Your task to perform on an android device: Turn off the flashlight Image 0: 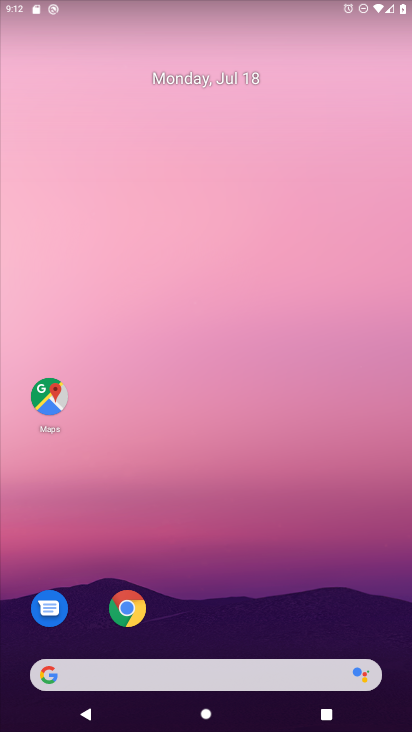
Step 0: press home button
Your task to perform on an android device: Turn off the flashlight Image 1: 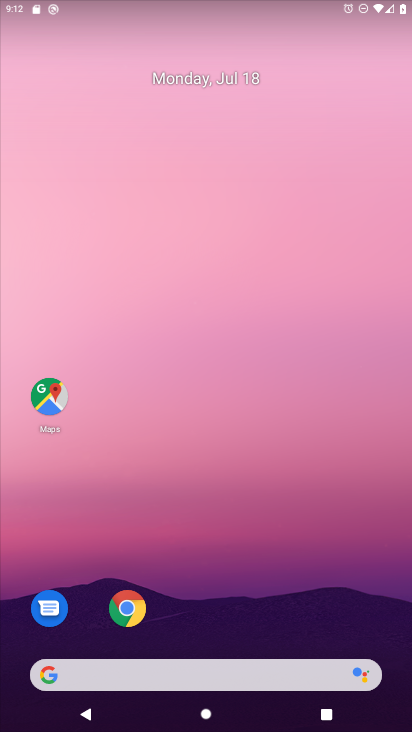
Step 1: drag from (228, 641) to (246, 0)
Your task to perform on an android device: Turn off the flashlight Image 2: 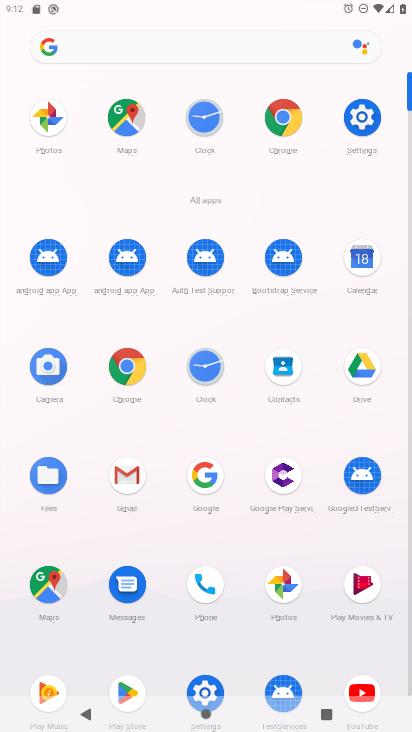
Step 2: click (358, 109)
Your task to perform on an android device: Turn off the flashlight Image 3: 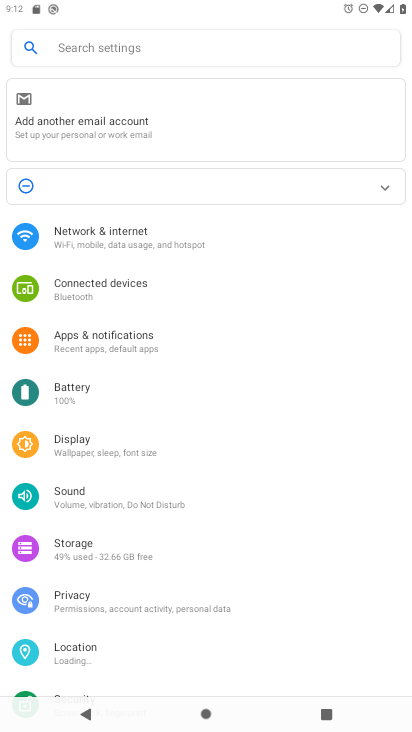
Step 3: click (96, 35)
Your task to perform on an android device: Turn off the flashlight Image 4: 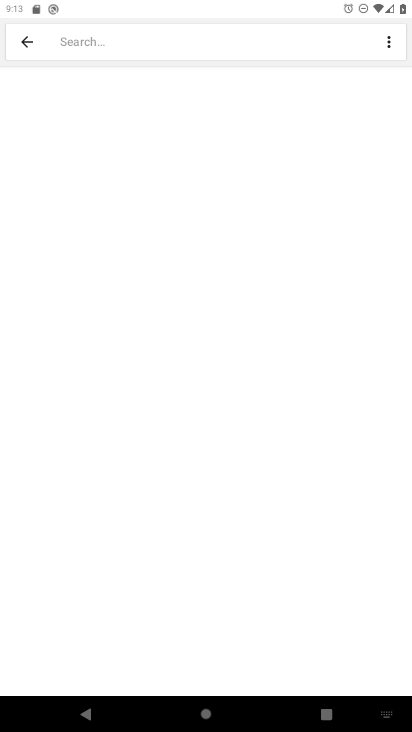
Step 4: type "flashlight"
Your task to perform on an android device: Turn off the flashlight Image 5: 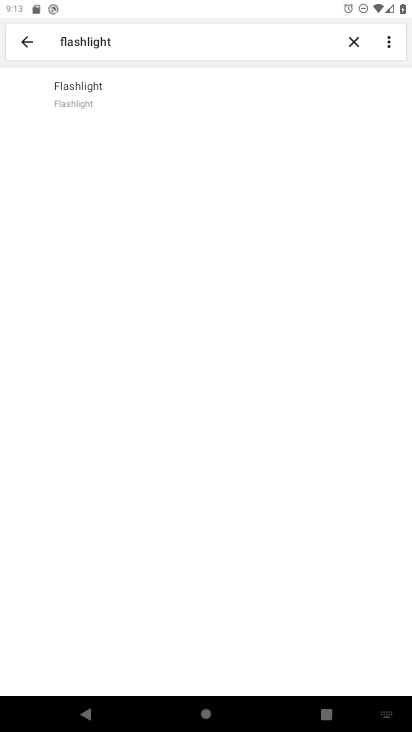
Step 5: click (108, 92)
Your task to perform on an android device: Turn off the flashlight Image 6: 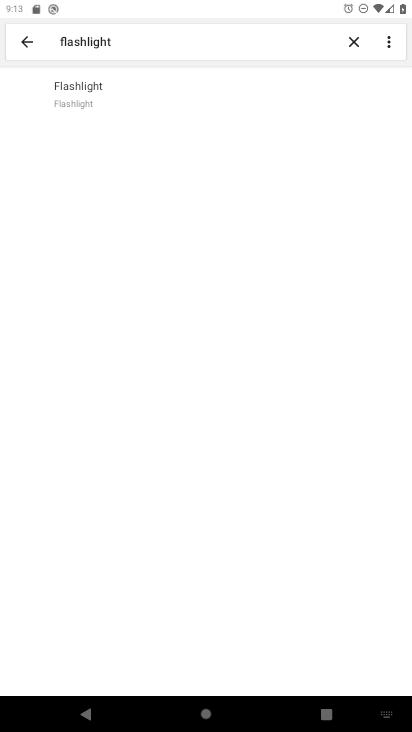
Step 6: click (108, 92)
Your task to perform on an android device: Turn off the flashlight Image 7: 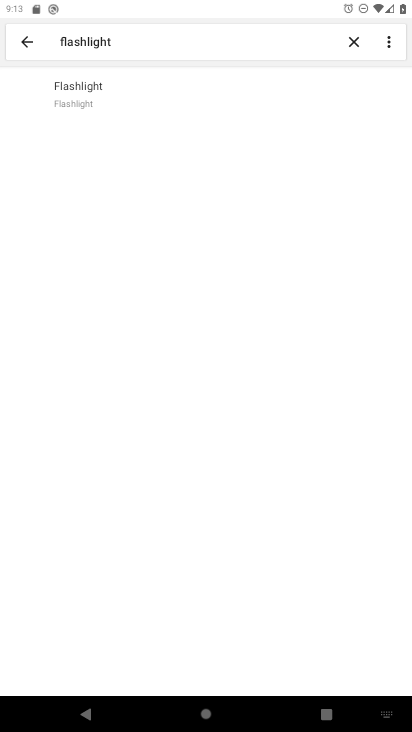
Step 7: task complete